Your task to perform on an android device: turn notification dots on Image 0: 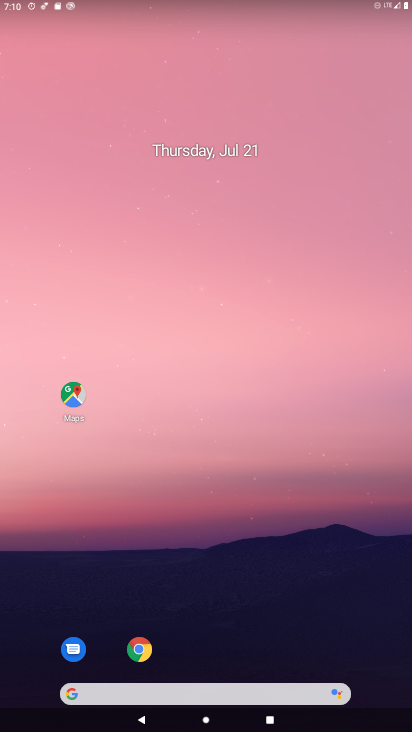
Step 0: drag from (328, 620) to (99, 31)
Your task to perform on an android device: turn notification dots on Image 1: 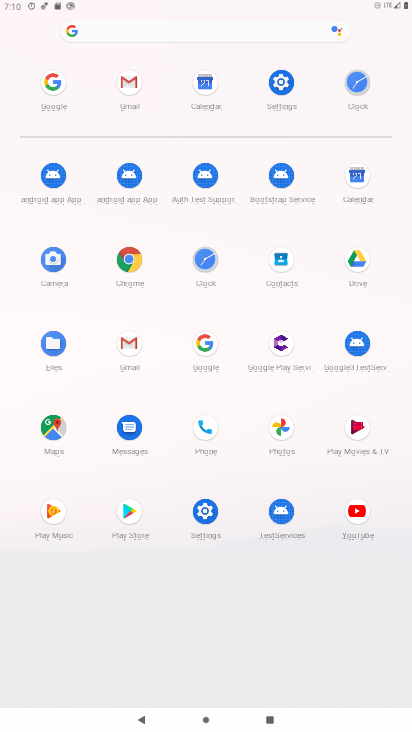
Step 1: click (288, 82)
Your task to perform on an android device: turn notification dots on Image 2: 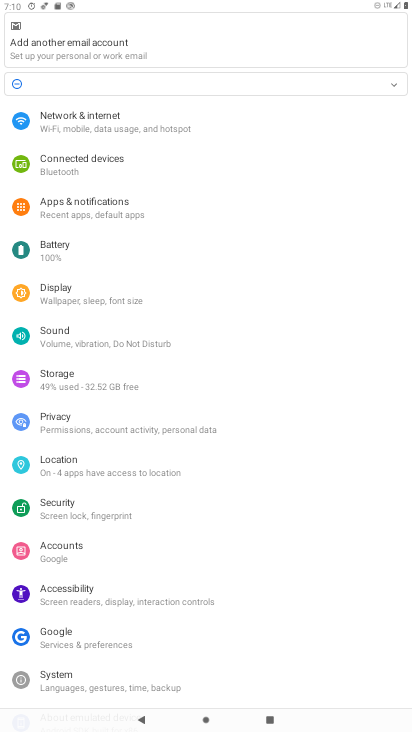
Step 2: click (73, 217)
Your task to perform on an android device: turn notification dots on Image 3: 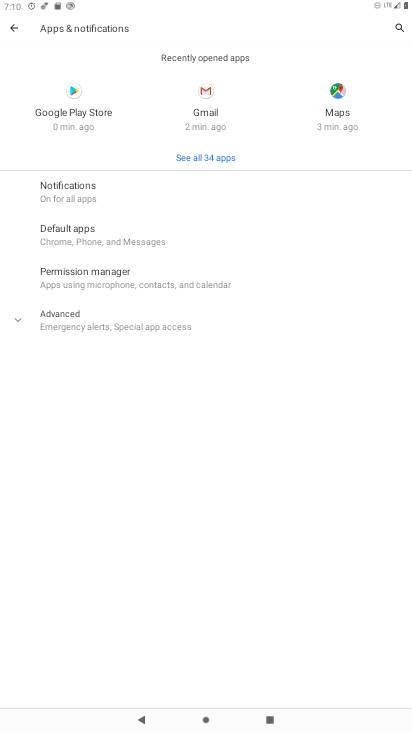
Step 3: click (68, 198)
Your task to perform on an android device: turn notification dots on Image 4: 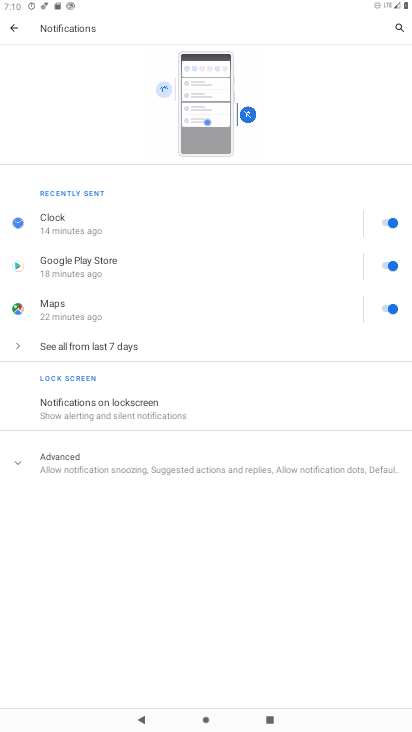
Step 4: click (74, 457)
Your task to perform on an android device: turn notification dots on Image 5: 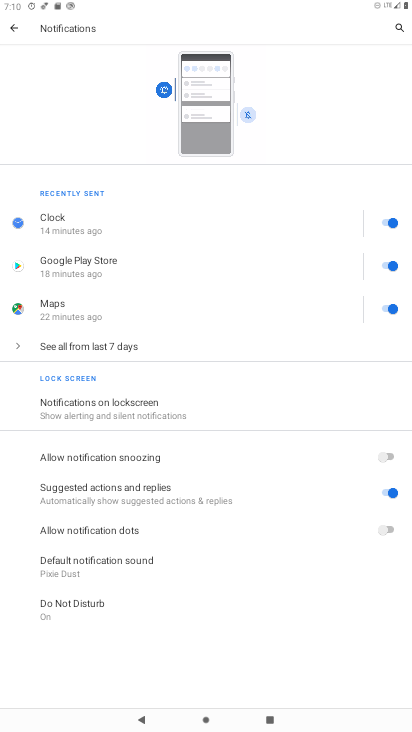
Step 5: click (140, 534)
Your task to perform on an android device: turn notification dots on Image 6: 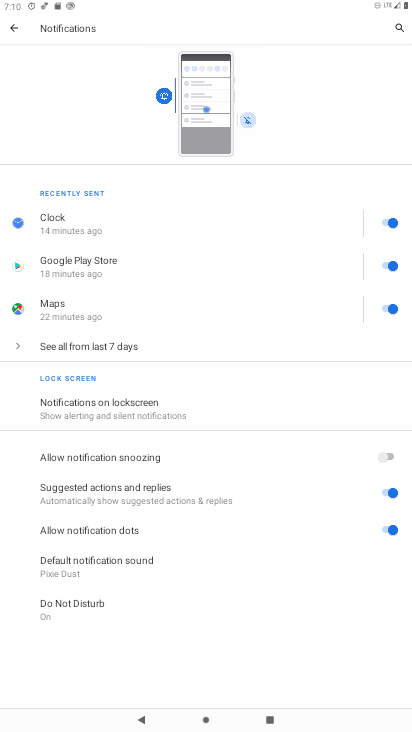
Step 6: task complete